Your task to perform on an android device: Open notification settings Image 0: 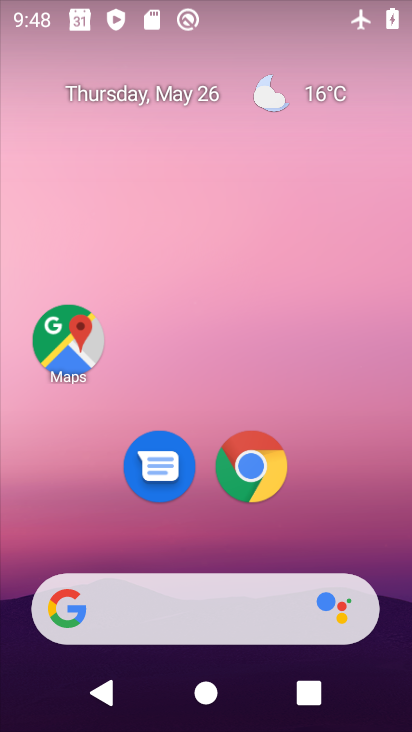
Step 0: click (209, 127)
Your task to perform on an android device: Open notification settings Image 1: 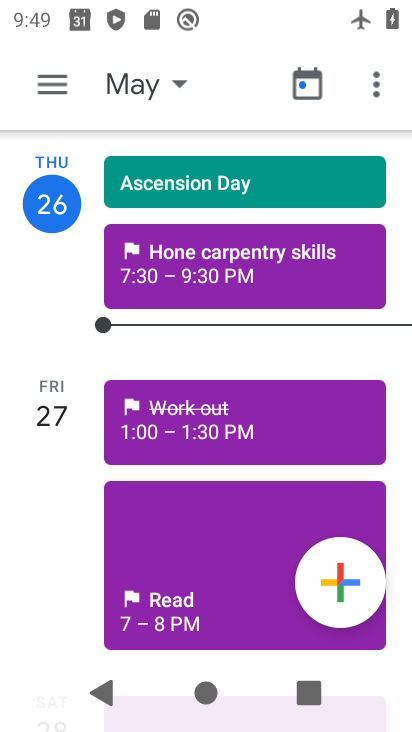
Step 1: press home button
Your task to perform on an android device: Open notification settings Image 2: 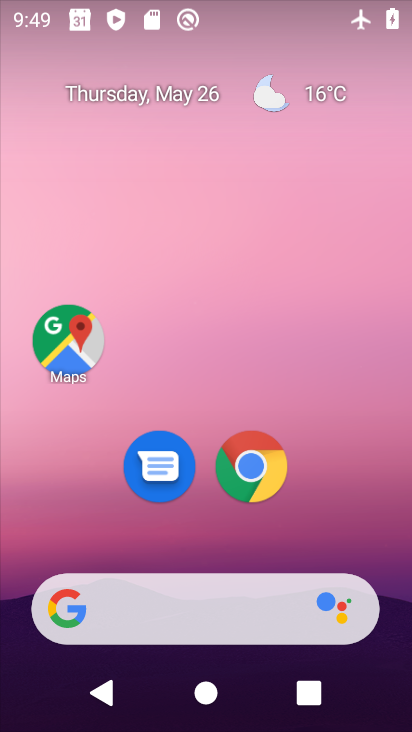
Step 2: drag from (330, 527) to (265, 155)
Your task to perform on an android device: Open notification settings Image 3: 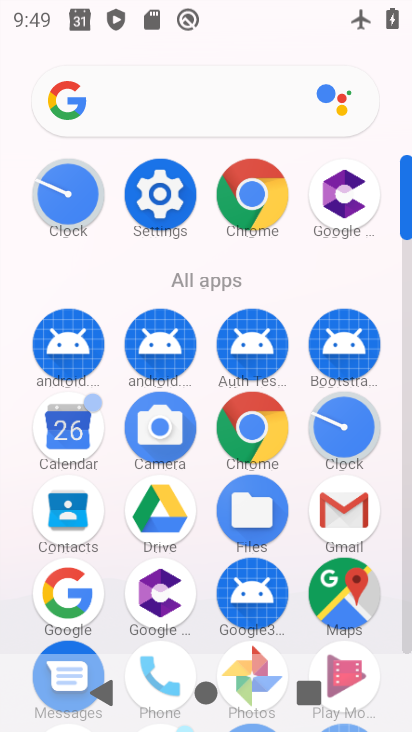
Step 3: click (159, 195)
Your task to perform on an android device: Open notification settings Image 4: 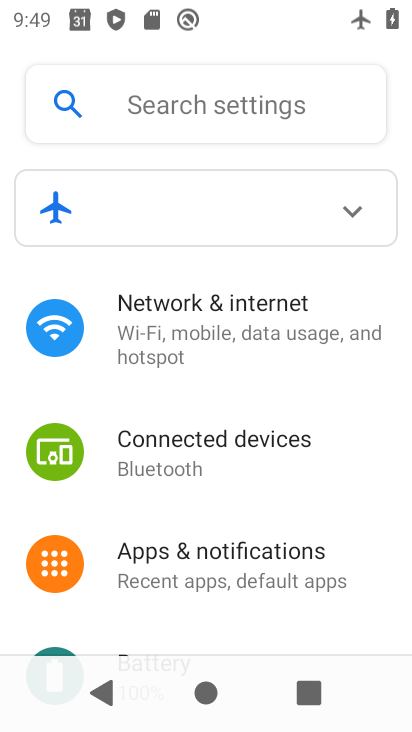
Step 4: click (231, 550)
Your task to perform on an android device: Open notification settings Image 5: 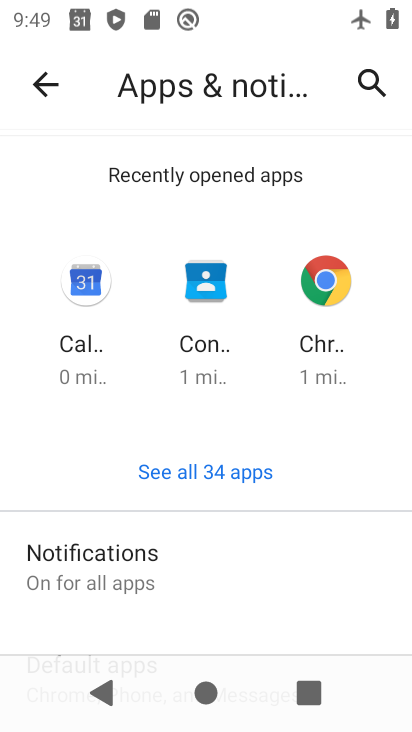
Step 5: task complete